Your task to perform on an android device: Open accessibility settings Image 0: 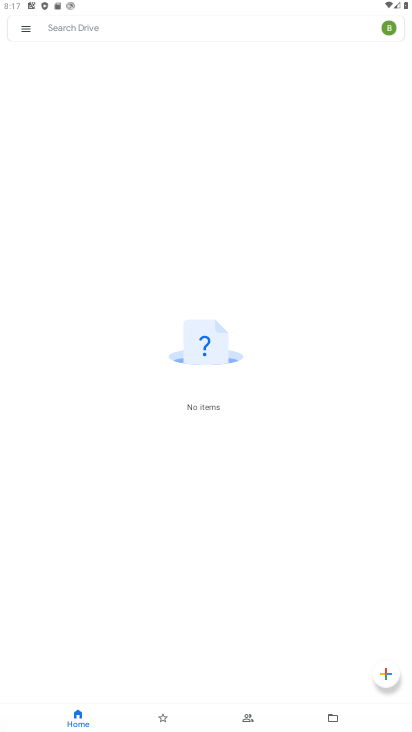
Step 0: press home button
Your task to perform on an android device: Open accessibility settings Image 1: 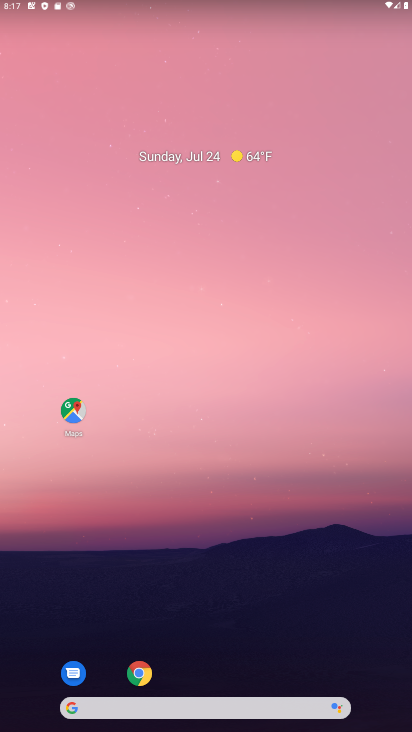
Step 1: drag from (305, 633) to (251, 0)
Your task to perform on an android device: Open accessibility settings Image 2: 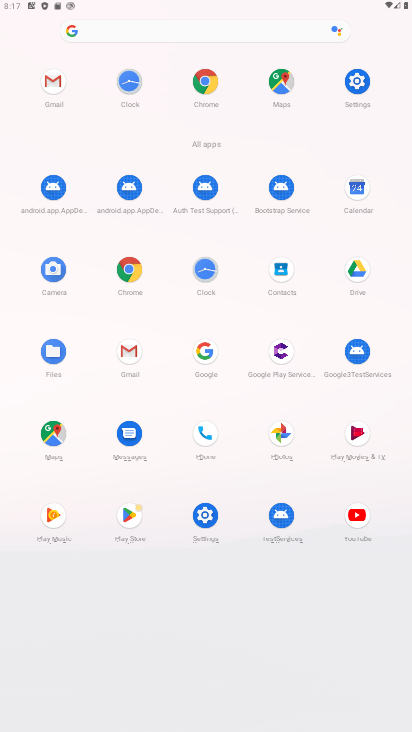
Step 2: click (209, 520)
Your task to perform on an android device: Open accessibility settings Image 3: 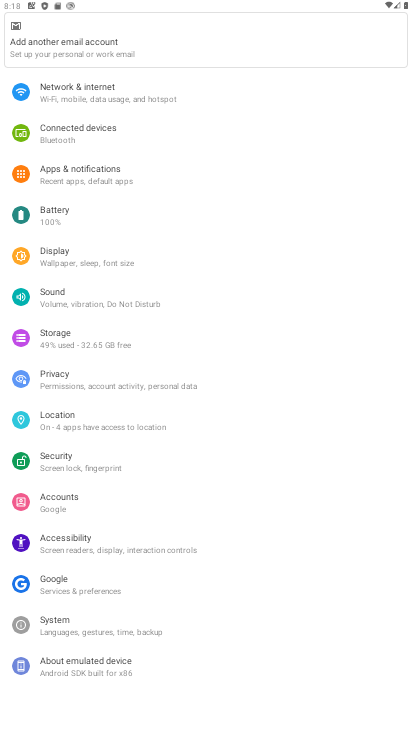
Step 3: click (82, 536)
Your task to perform on an android device: Open accessibility settings Image 4: 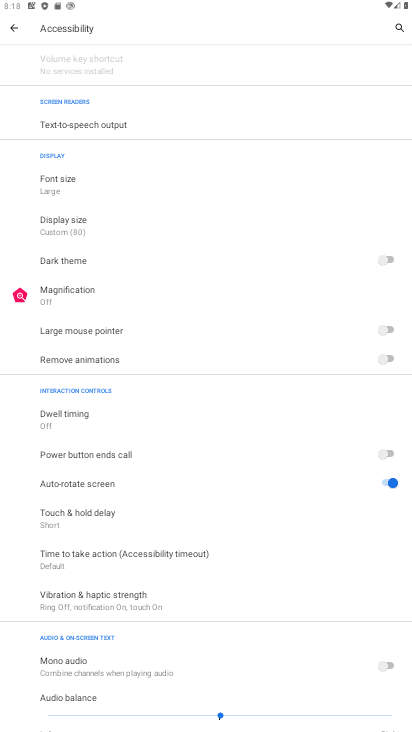
Step 4: task complete